Your task to perform on an android device: check out phone information Image 0: 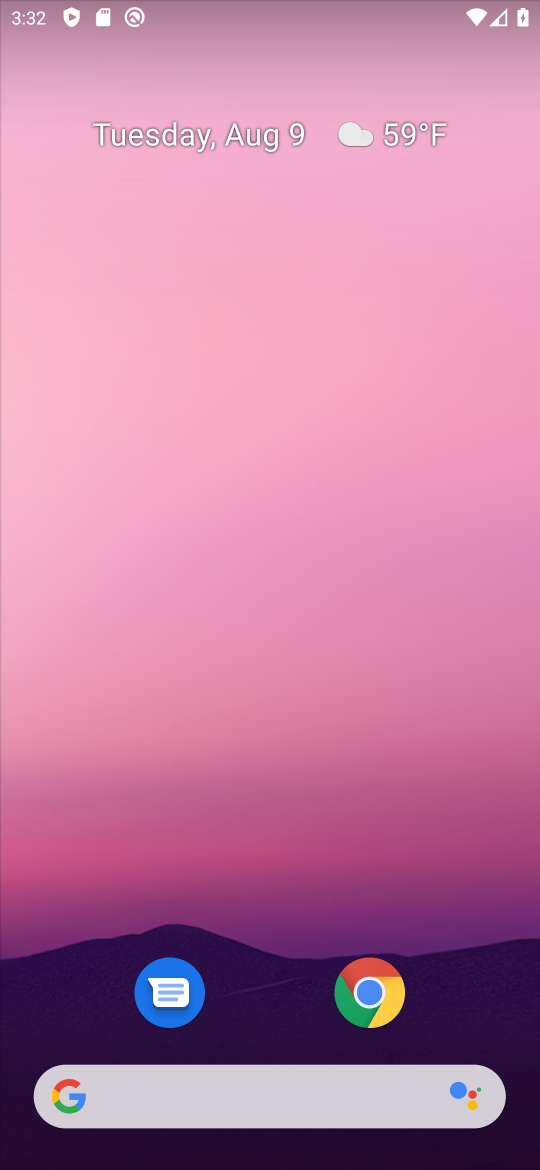
Step 0: drag from (189, 1000) to (336, 86)
Your task to perform on an android device: check out phone information Image 1: 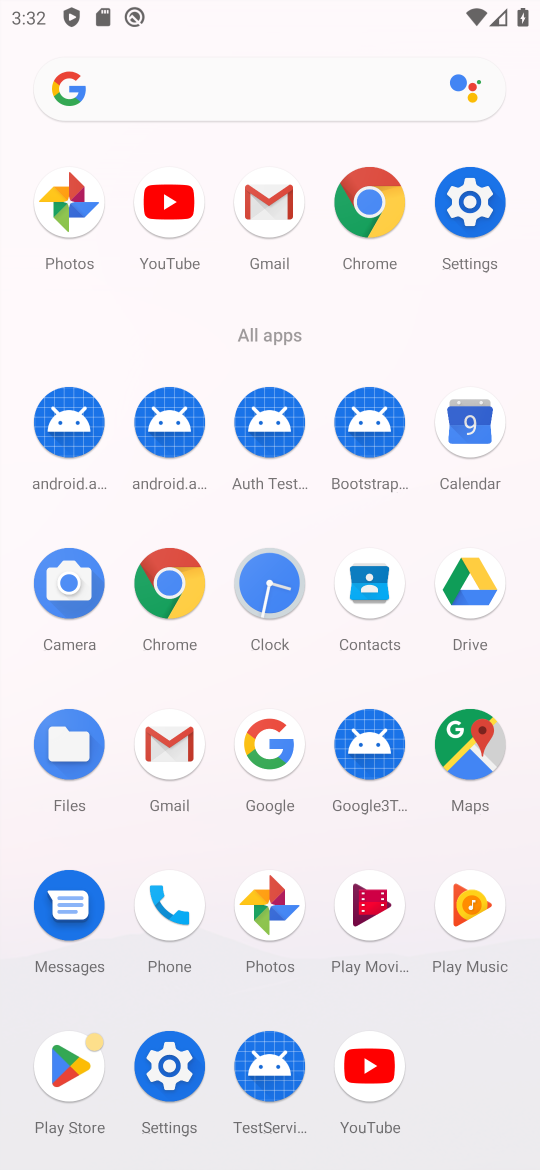
Step 1: click (475, 184)
Your task to perform on an android device: check out phone information Image 2: 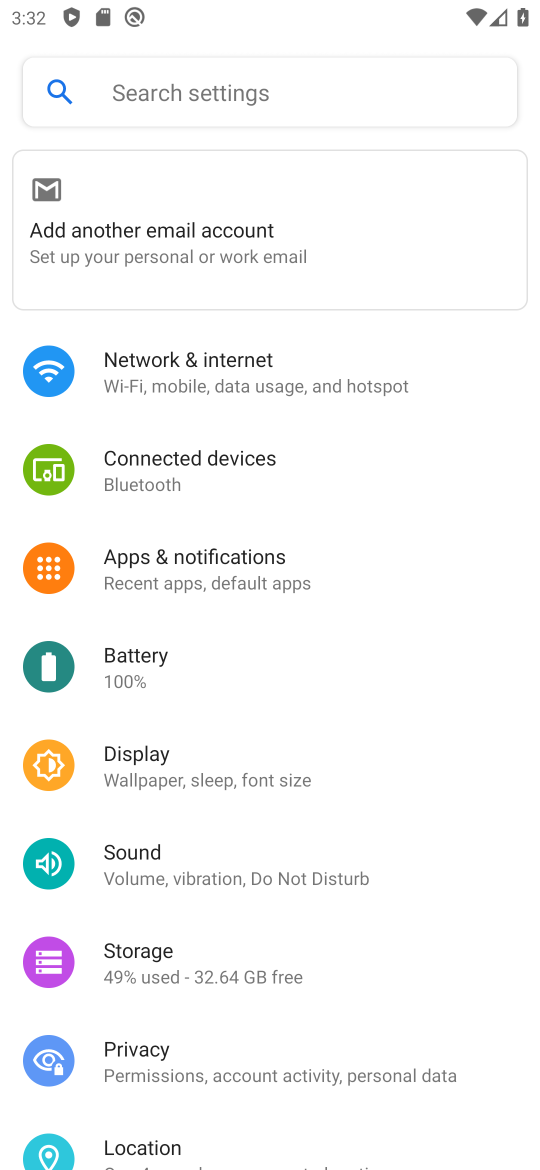
Step 2: drag from (289, 1068) to (420, 73)
Your task to perform on an android device: check out phone information Image 3: 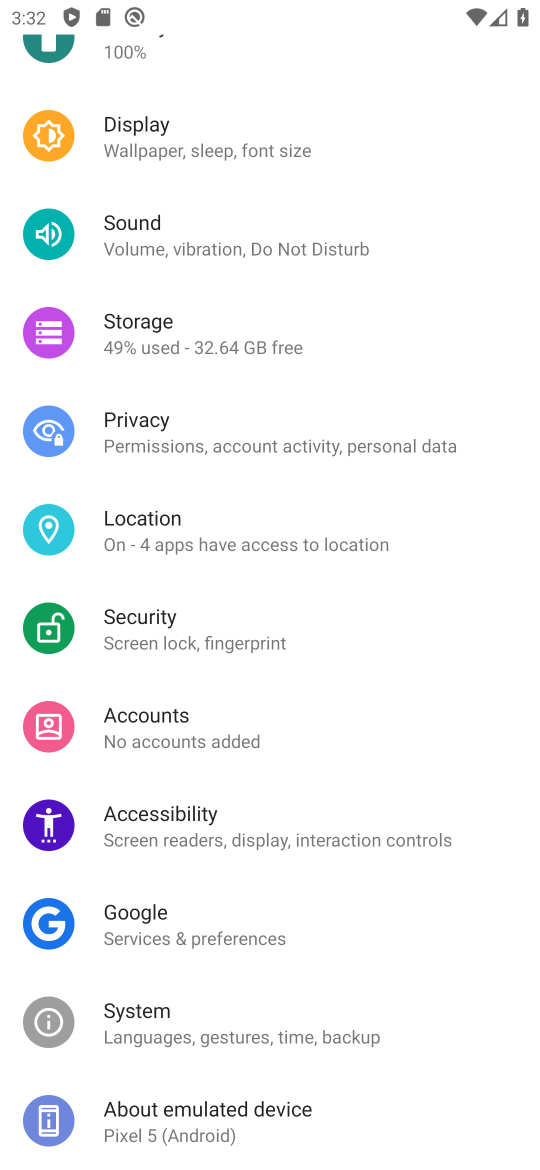
Step 3: drag from (289, 1040) to (430, 205)
Your task to perform on an android device: check out phone information Image 4: 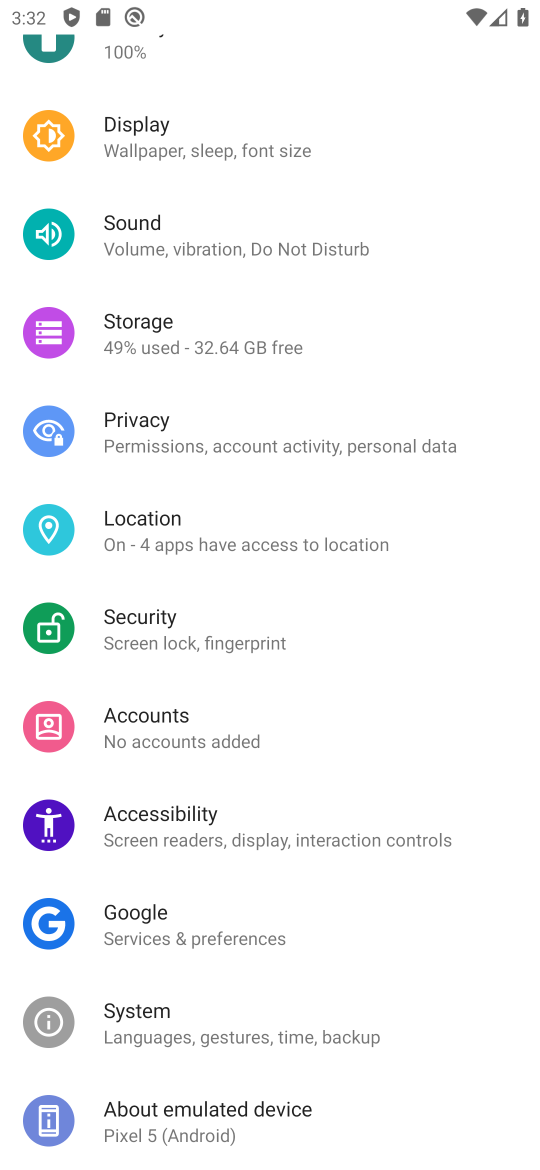
Step 4: click (191, 1109)
Your task to perform on an android device: check out phone information Image 5: 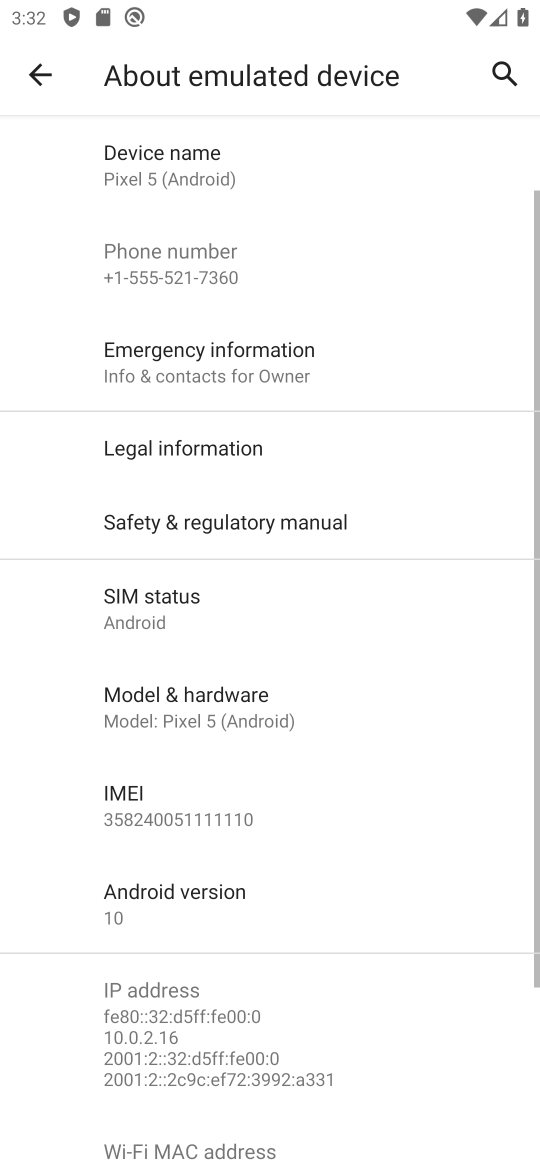
Step 5: task complete